Your task to perform on an android device: Do I have any events tomorrow? Image 0: 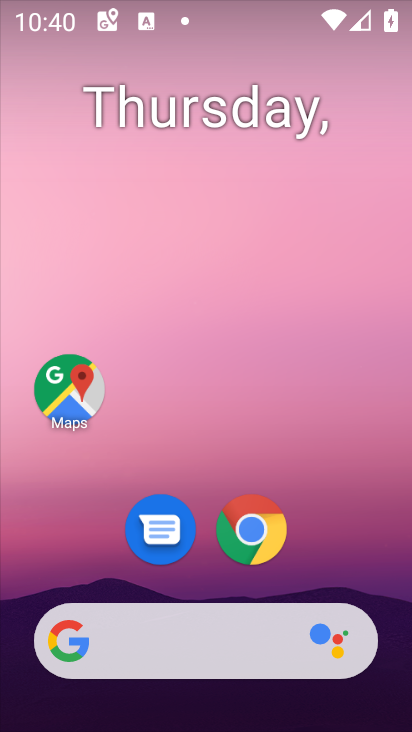
Step 0: drag from (245, 245) to (248, 84)
Your task to perform on an android device: Do I have any events tomorrow? Image 1: 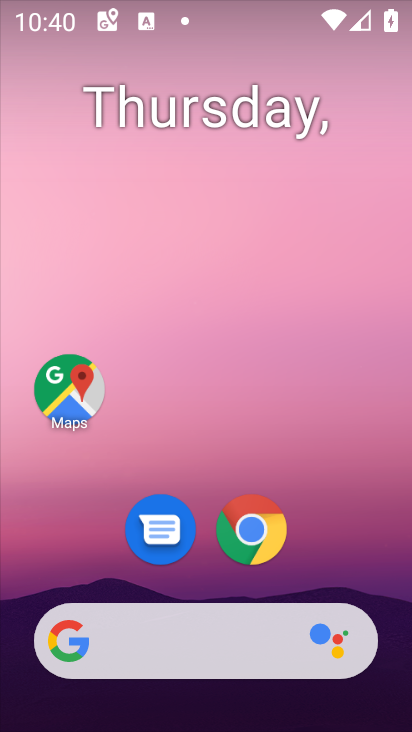
Step 1: drag from (206, 619) to (101, 15)
Your task to perform on an android device: Do I have any events tomorrow? Image 2: 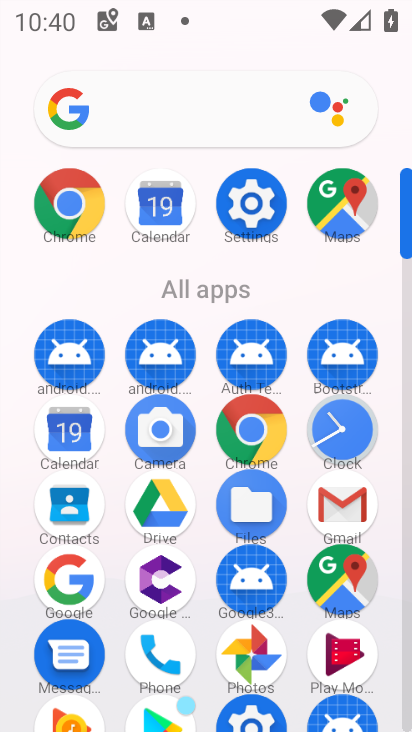
Step 2: click (75, 431)
Your task to perform on an android device: Do I have any events tomorrow? Image 3: 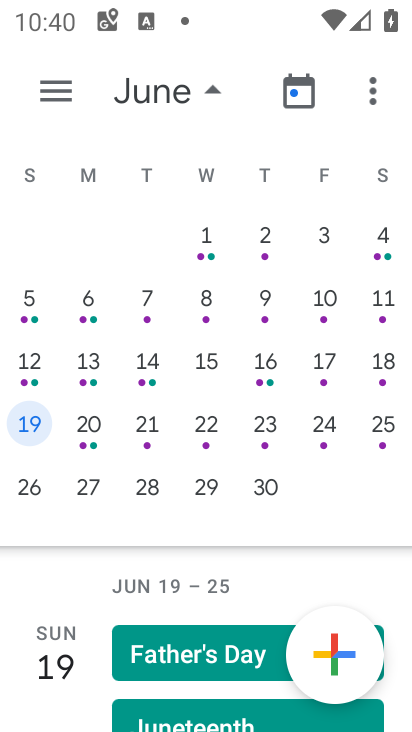
Step 3: drag from (82, 438) to (399, 351)
Your task to perform on an android device: Do I have any events tomorrow? Image 4: 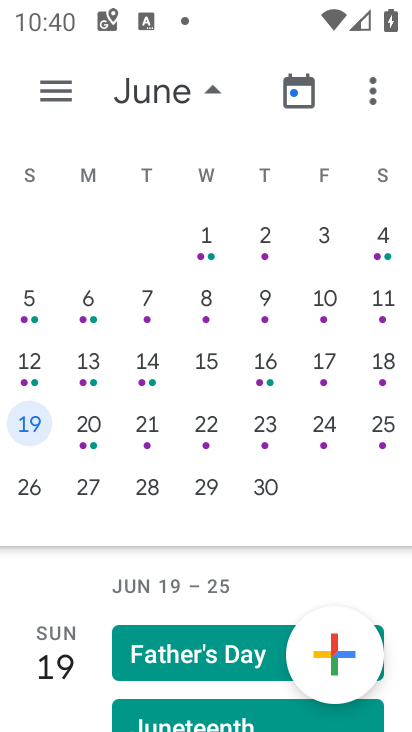
Step 4: drag from (64, 367) to (405, 262)
Your task to perform on an android device: Do I have any events tomorrow? Image 5: 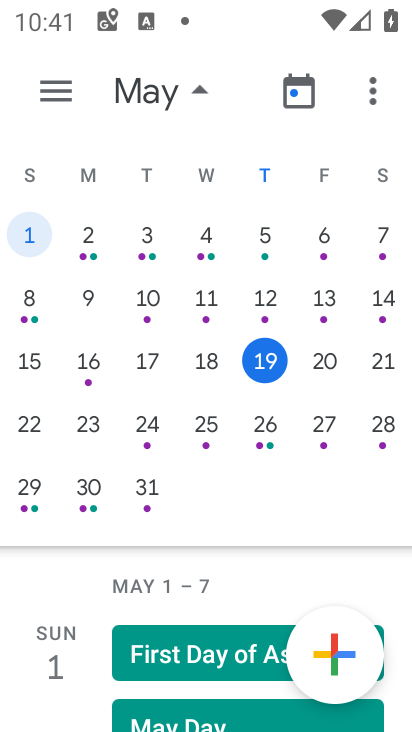
Step 5: click (323, 373)
Your task to perform on an android device: Do I have any events tomorrow? Image 6: 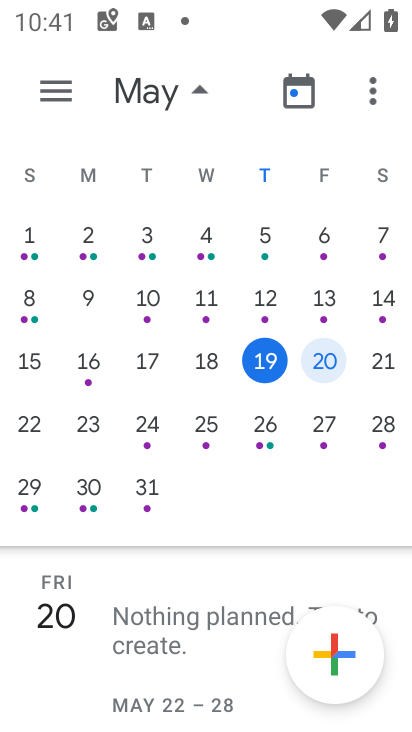
Step 6: task complete